Your task to perform on an android device: Search for sushi restaurants on Maps Image 0: 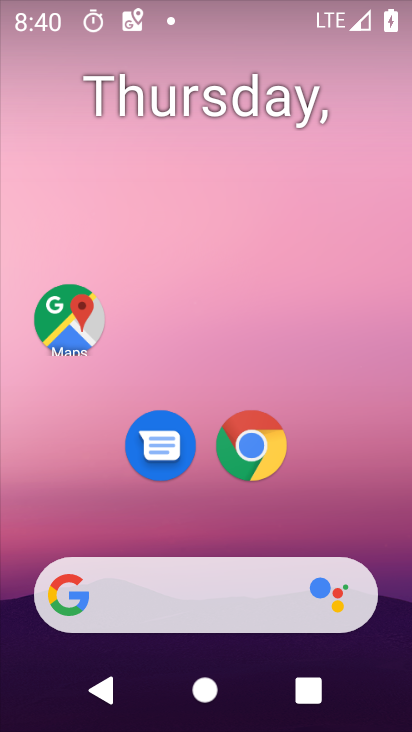
Step 0: drag from (192, 523) to (167, 220)
Your task to perform on an android device: Search for sushi restaurants on Maps Image 1: 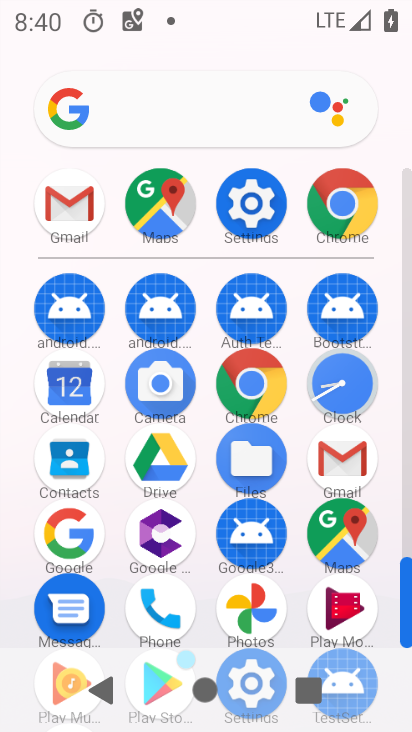
Step 1: click (338, 532)
Your task to perform on an android device: Search for sushi restaurants on Maps Image 2: 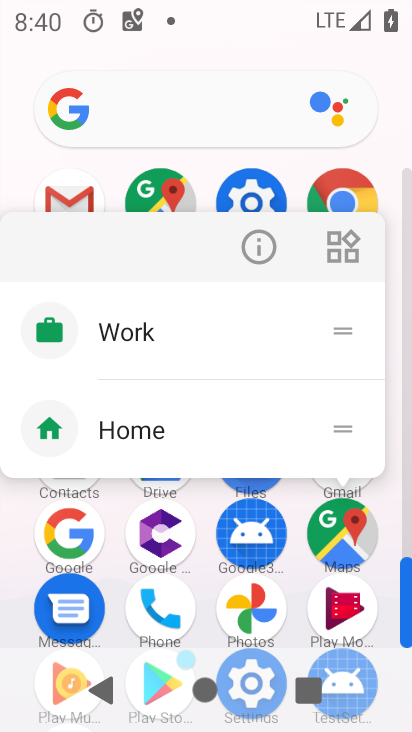
Step 2: click (267, 252)
Your task to perform on an android device: Search for sushi restaurants on Maps Image 3: 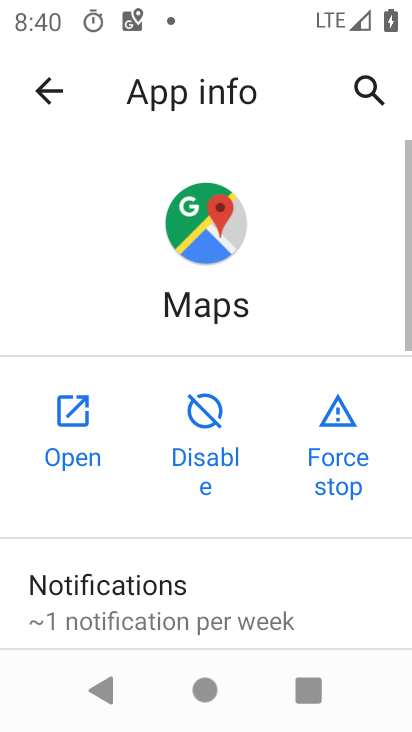
Step 3: click (77, 450)
Your task to perform on an android device: Search for sushi restaurants on Maps Image 4: 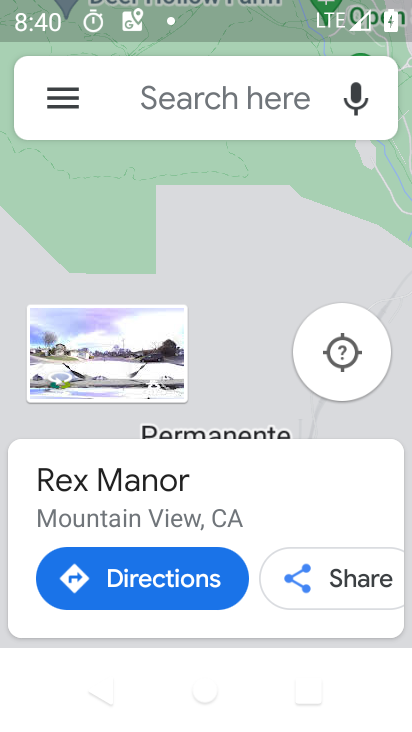
Step 4: click (171, 100)
Your task to perform on an android device: Search for sushi restaurants on Maps Image 5: 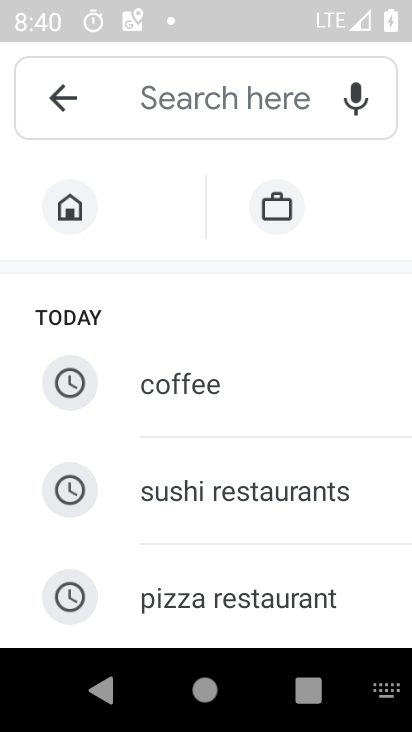
Step 5: click (210, 497)
Your task to perform on an android device: Search for sushi restaurants on Maps Image 6: 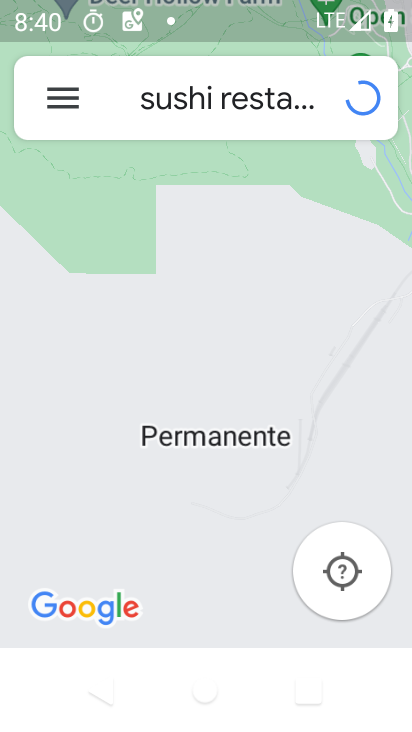
Step 6: task complete